Your task to perform on an android device: What's the weather like in Delhi? Image 0: 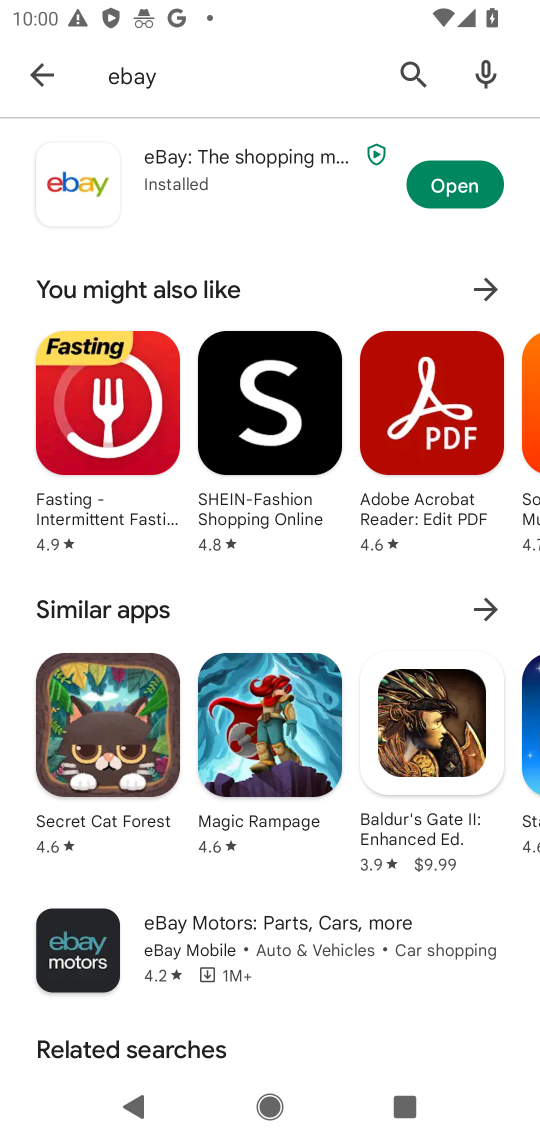
Step 0: press home button
Your task to perform on an android device: What's the weather like in Delhi? Image 1: 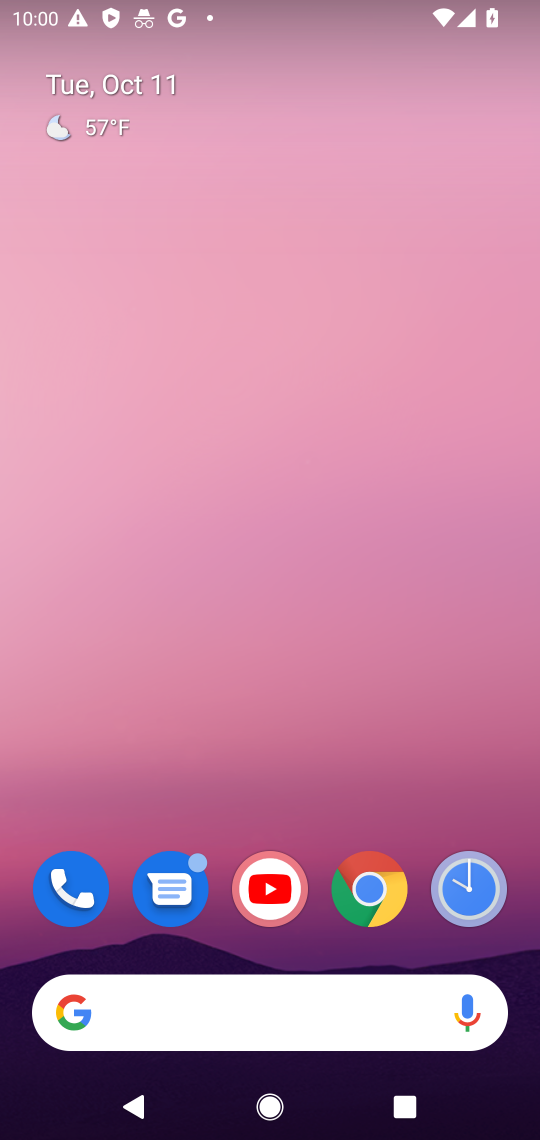
Step 1: click (193, 1000)
Your task to perform on an android device: What's the weather like in Delhi? Image 2: 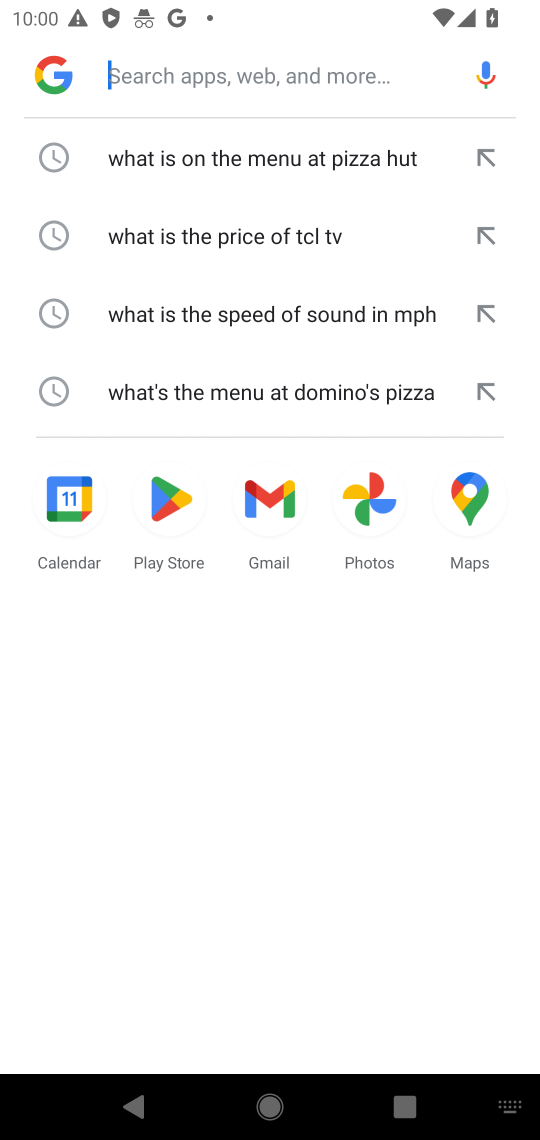
Step 2: click (138, 49)
Your task to perform on an android device: What's the weather like in Delhi? Image 3: 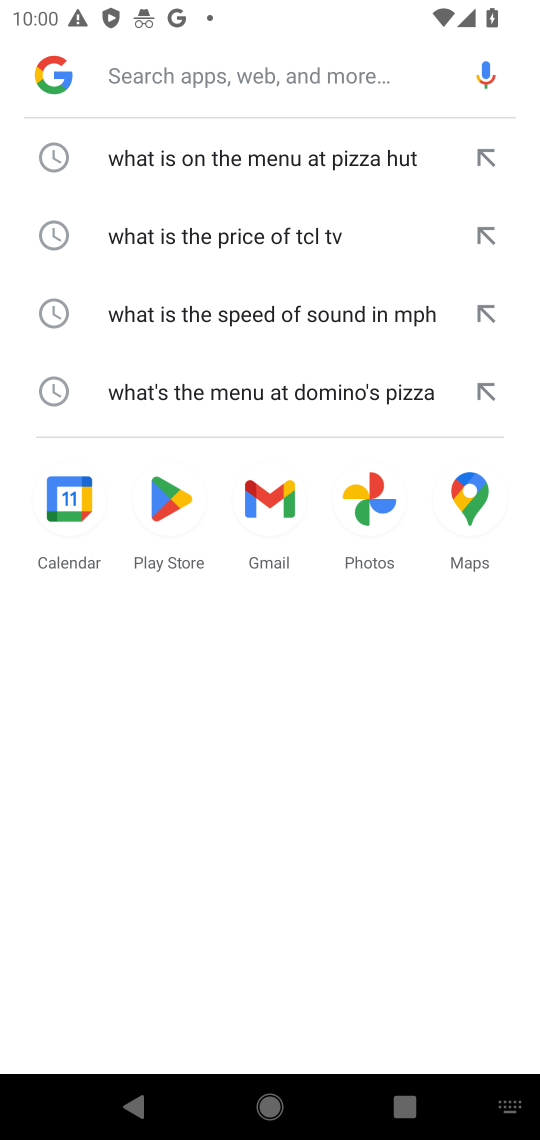
Step 3: type "What's the weather like in Delhi?"
Your task to perform on an android device: What's the weather like in Delhi? Image 4: 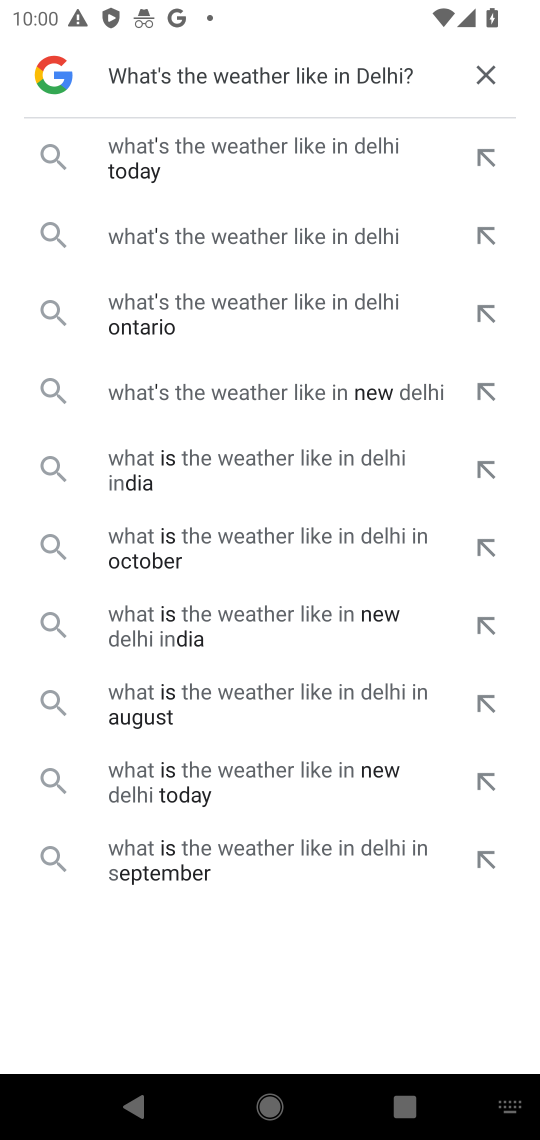
Step 4: click (179, 170)
Your task to perform on an android device: What's the weather like in Delhi? Image 5: 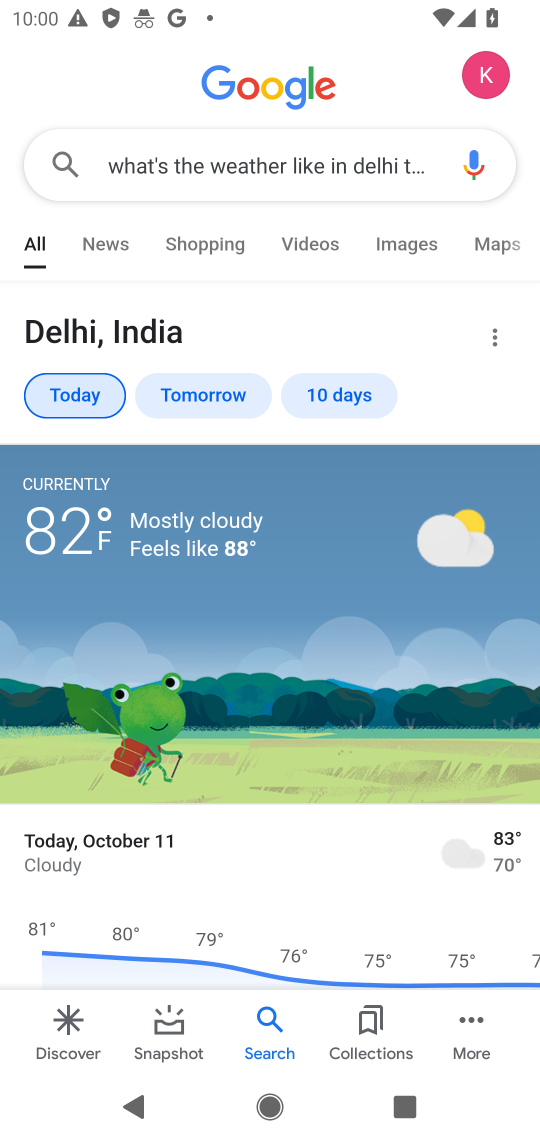
Step 5: task complete